Your task to perform on an android device: toggle notifications settings in the gmail app Image 0: 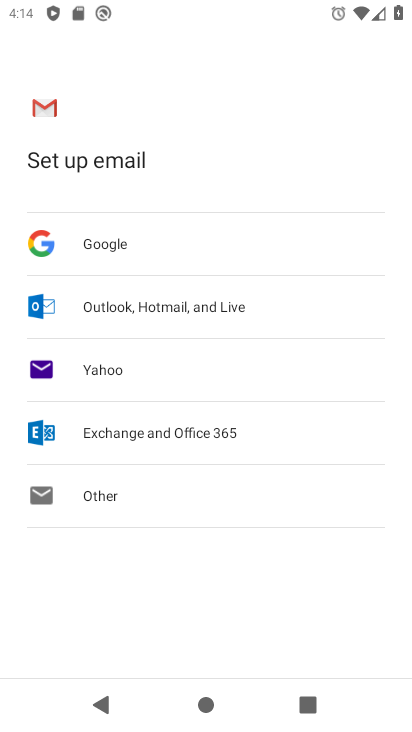
Step 0: press home button
Your task to perform on an android device: toggle notifications settings in the gmail app Image 1: 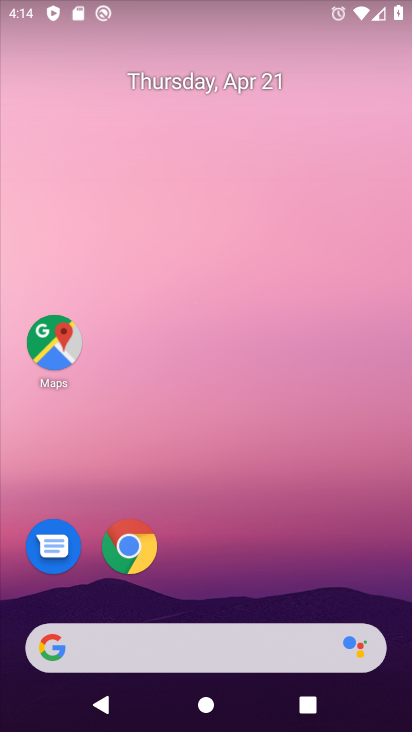
Step 1: drag from (301, 541) to (283, 134)
Your task to perform on an android device: toggle notifications settings in the gmail app Image 2: 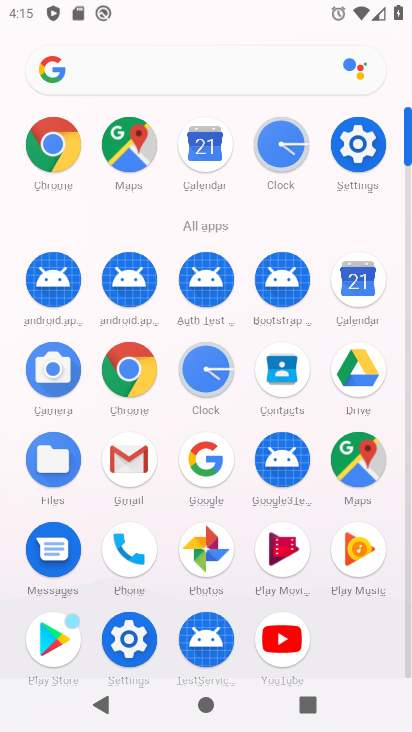
Step 2: click (127, 458)
Your task to perform on an android device: toggle notifications settings in the gmail app Image 3: 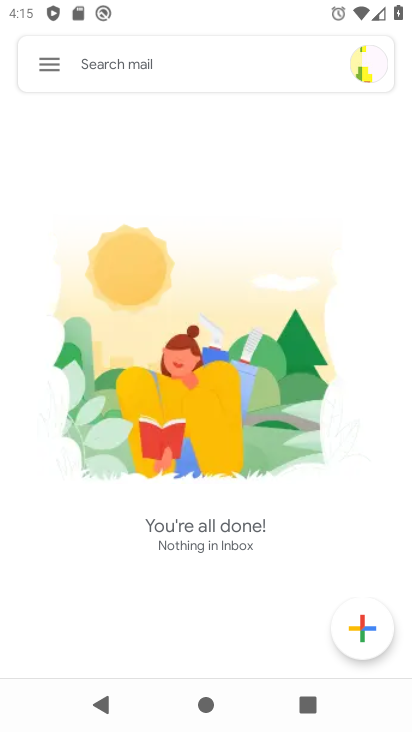
Step 3: click (45, 60)
Your task to perform on an android device: toggle notifications settings in the gmail app Image 4: 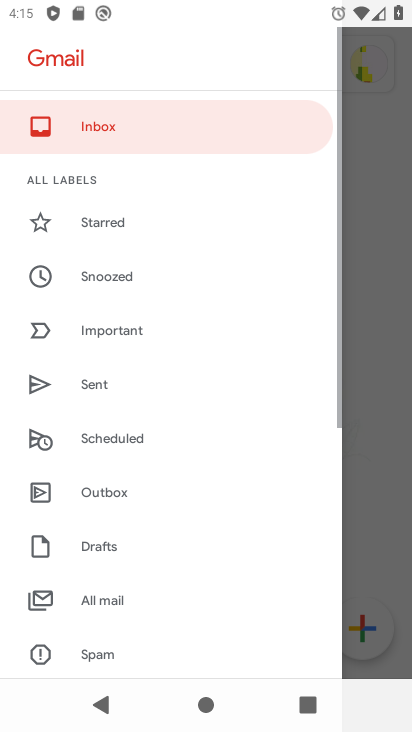
Step 4: drag from (140, 632) to (228, 167)
Your task to perform on an android device: toggle notifications settings in the gmail app Image 5: 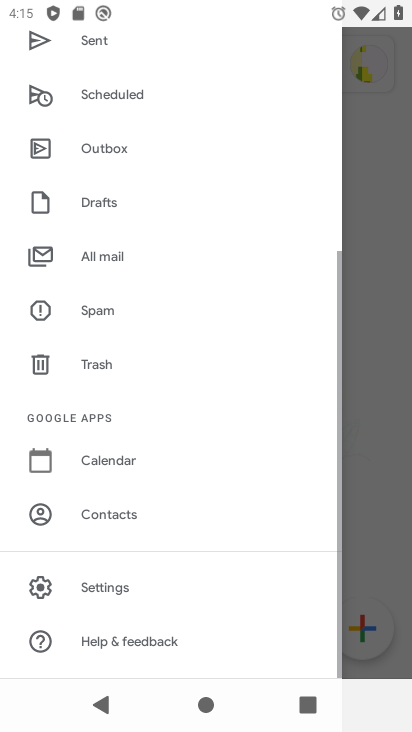
Step 5: click (118, 567)
Your task to perform on an android device: toggle notifications settings in the gmail app Image 6: 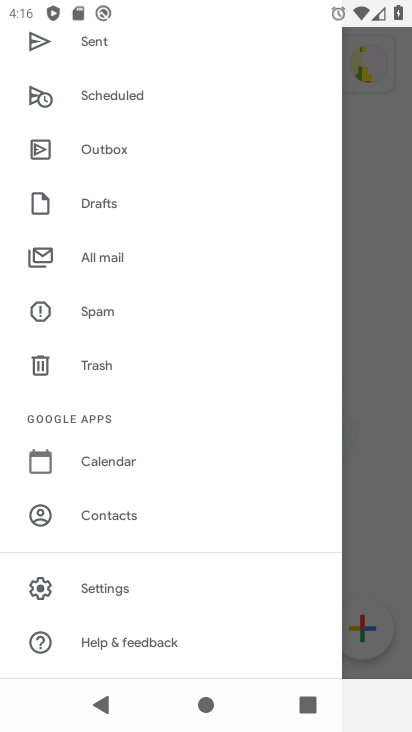
Step 6: click (113, 583)
Your task to perform on an android device: toggle notifications settings in the gmail app Image 7: 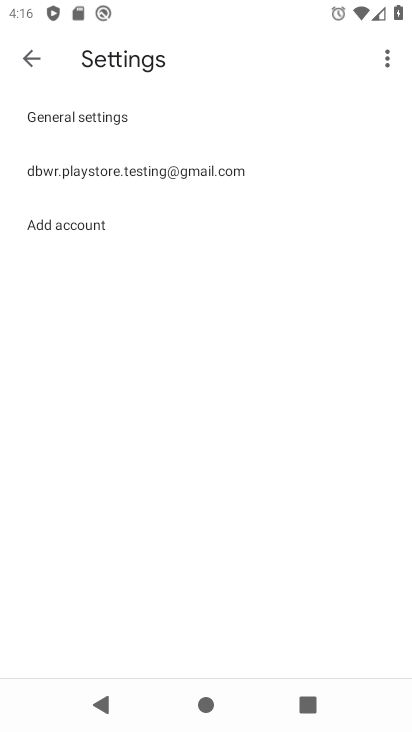
Step 7: click (122, 173)
Your task to perform on an android device: toggle notifications settings in the gmail app Image 8: 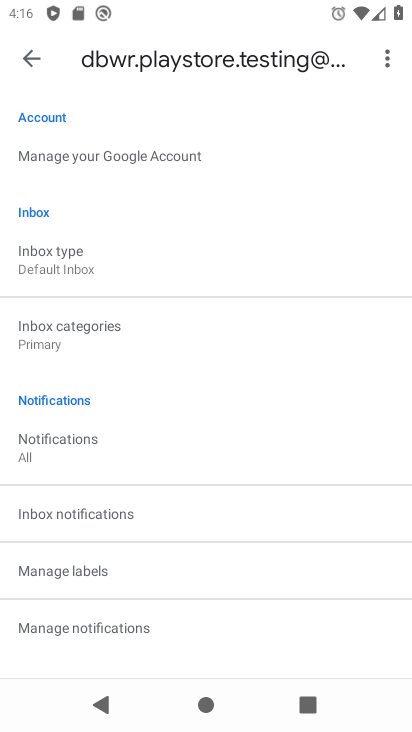
Step 8: click (74, 623)
Your task to perform on an android device: toggle notifications settings in the gmail app Image 9: 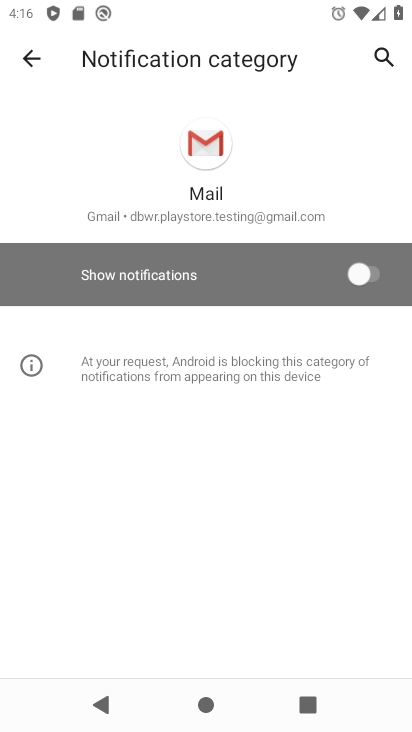
Step 9: click (293, 261)
Your task to perform on an android device: toggle notifications settings in the gmail app Image 10: 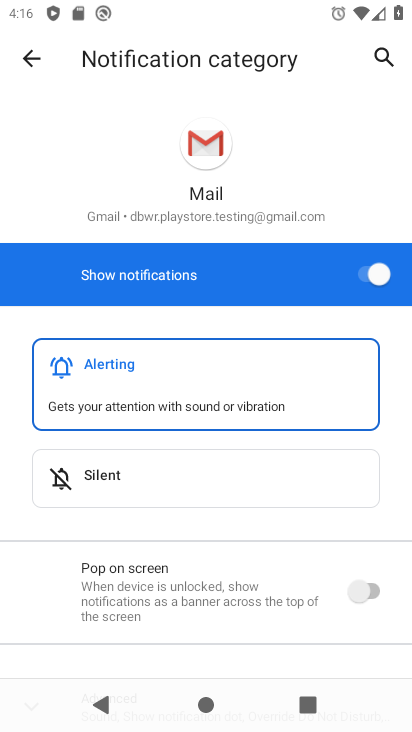
Step 10: task complete